Your task to perform on an android device: find snoozed emails in the gmail app Image 0: 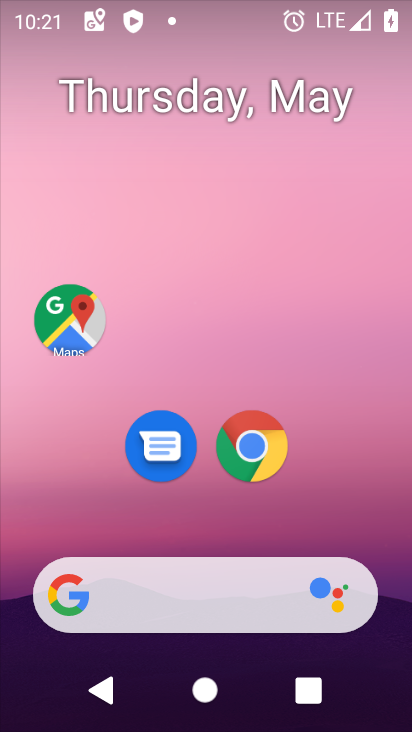
Step 0: drag from (391, 602) to (288, 93)
Your task to perform on an android device: find snoozed emails in the gmail app Image 1: 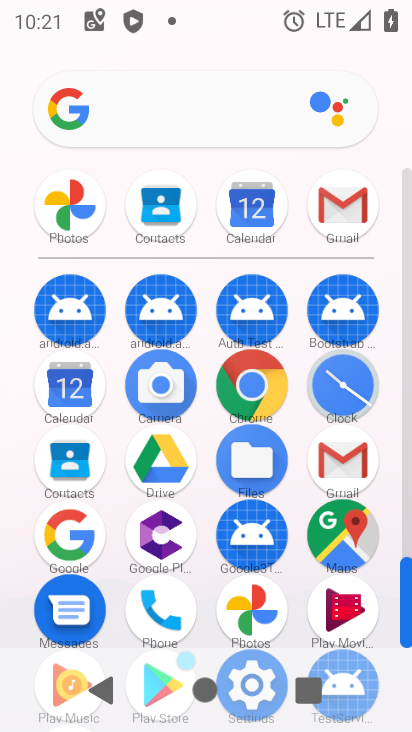
Step 1: click (406, 541)
Your task to perform on an android device: find snoozed emails in the gmail app Image 2: 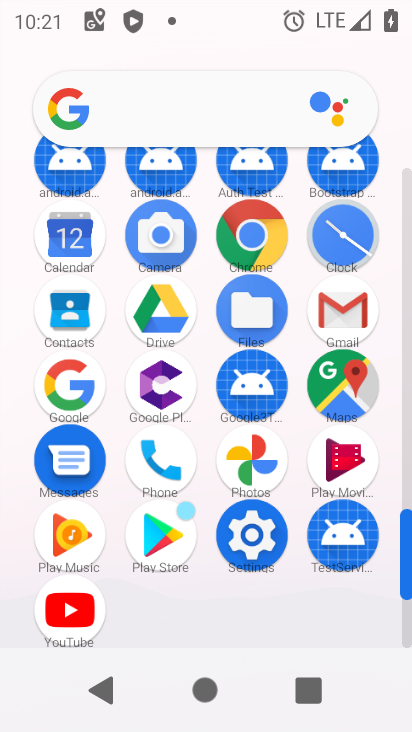
Step 2: click (339, 308)
Your task to perform on an android device: find snoozed emails in the gmail app Image 3: 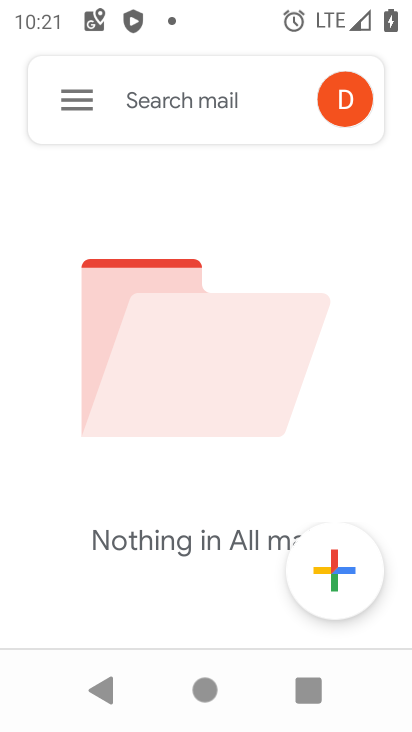
Step 3: click (77, 98)
Your task to perform on an android device: find snoozed emails in the gmail app Image 4: 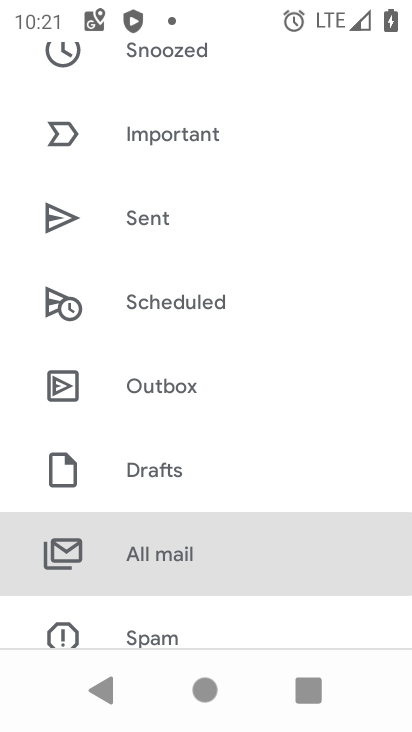
Step 4: drag from (239, 198) to (247, 415)
Your task to perform on an android device: find snoozed emails in the gmail app Image 5: 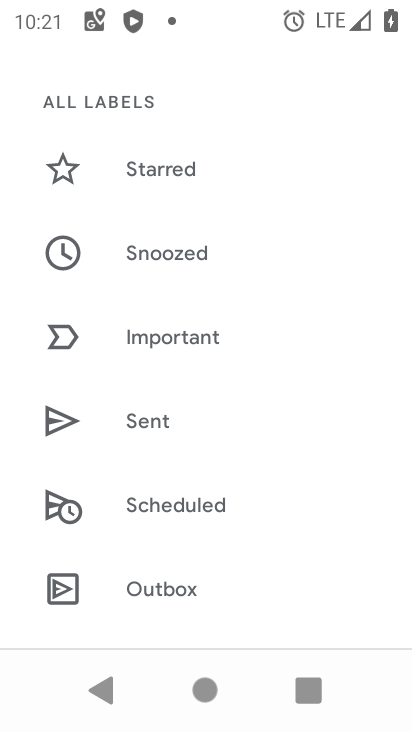
Step 5: click (157, 252)
Your task to perform on an android device: find snoozed emails in the gmail app Image 6: 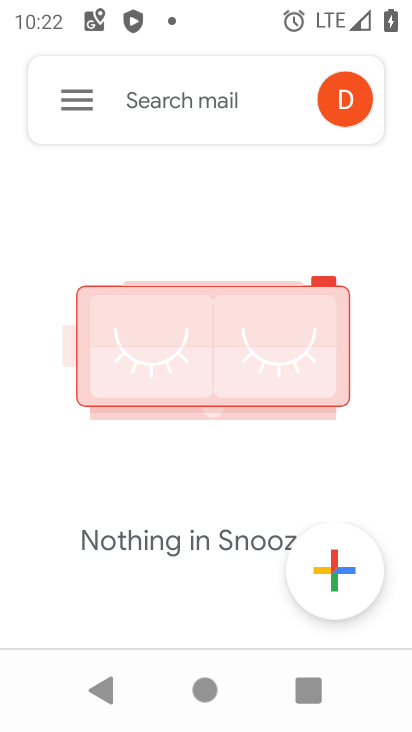
Step 6: task complete